Your task to perform on an android device: turn on bluetooth scan Image 0: 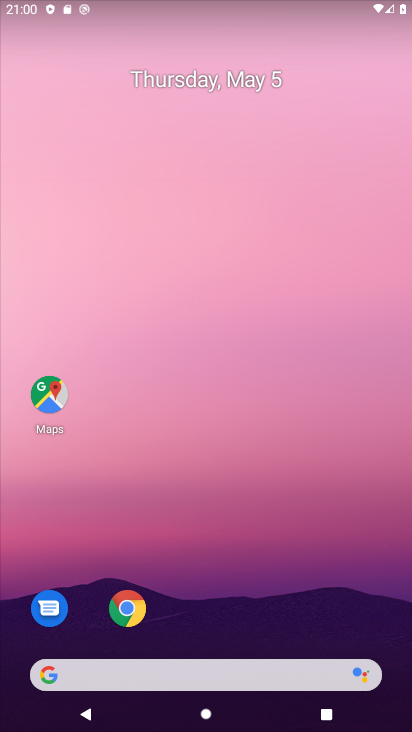
Step 0: drag from (222, 666) to (144, 50)
Your task to perform on an android device: turn on bluetooth scan Image 1: 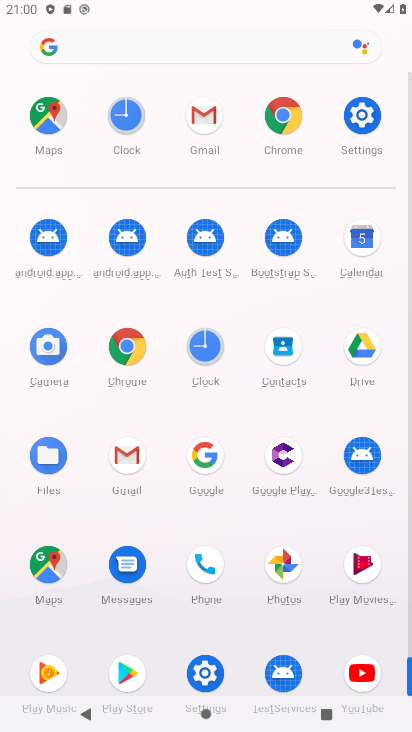
Step 1: click (361, 127)
Your task to perform on an android device: turn on bluetooth scan Image 2: 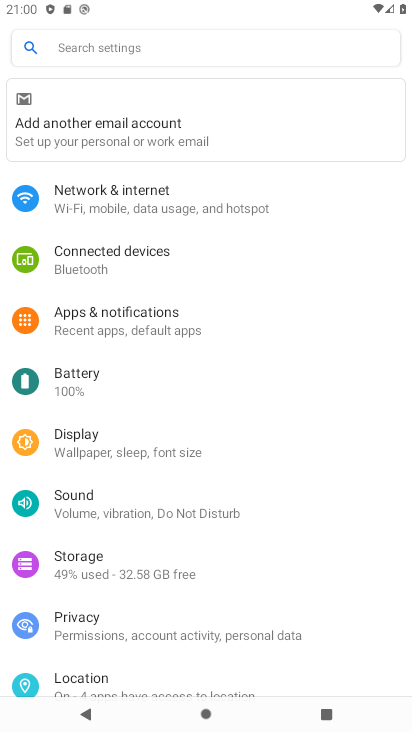
Step 2: click (89, 681)
Your task to perform on an android device: turn on bluetooth scan Image 3: 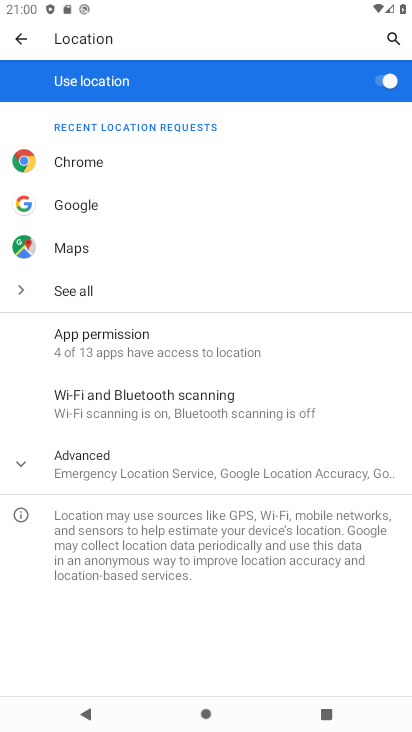
Step 3: click (155, 396)
Your task to perform on an android device: turn on bluetooth scan Image 4: 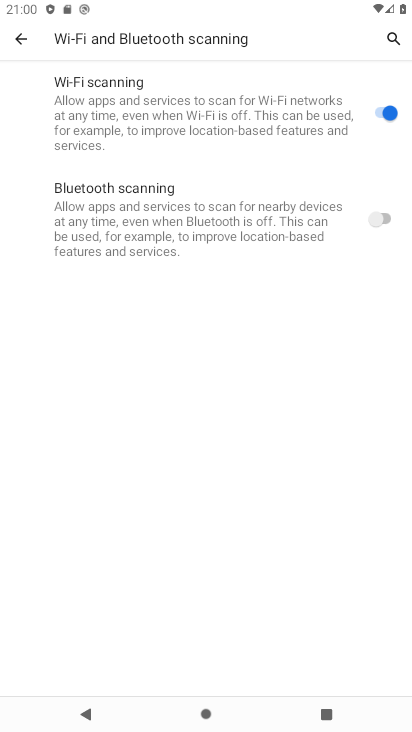
Step 4: click (381, 218)
Your task to perform on an android device: turn on bluetooth scan Image 5: 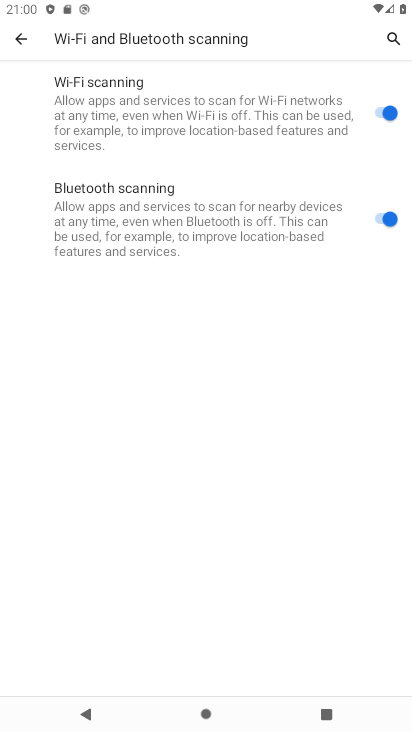
Step 5: task complete